Your task to perform on an android device: Go to eBay Image 0: 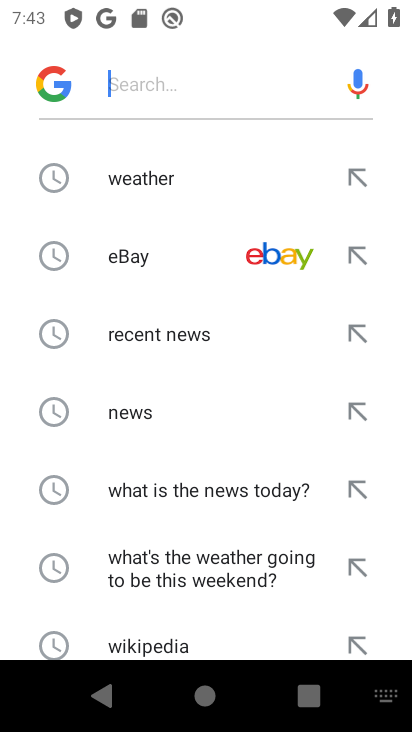
Step 0: click (164, 252)
Your task to perform on an android device: Go to eBay Image 1: 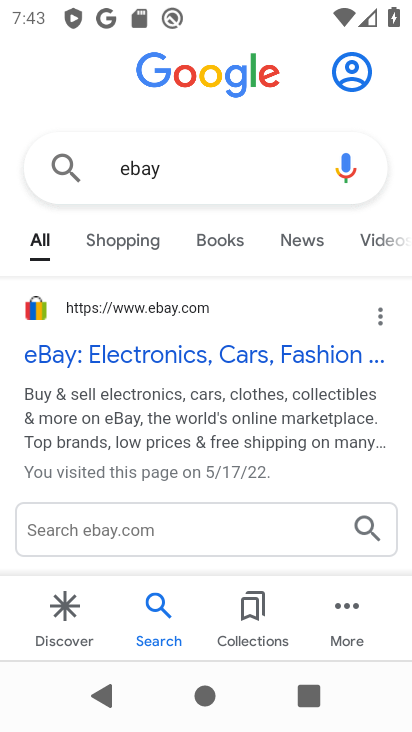
Step 1: click (81, 360)
Your task to perform on an android device: Go to eBay Image 2: 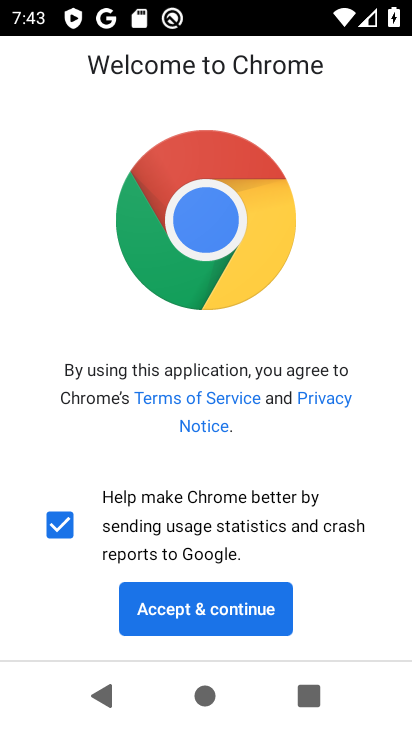
Step 2: click (227, 600)
Your task to perform on an android device: Go to eBay Image 3: 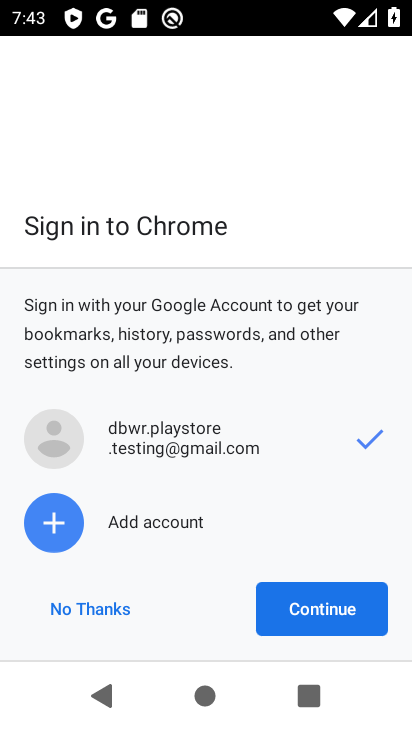
Step 3: click (329, 600)
Your task to perform on an android device: Go to eBay Image 4: 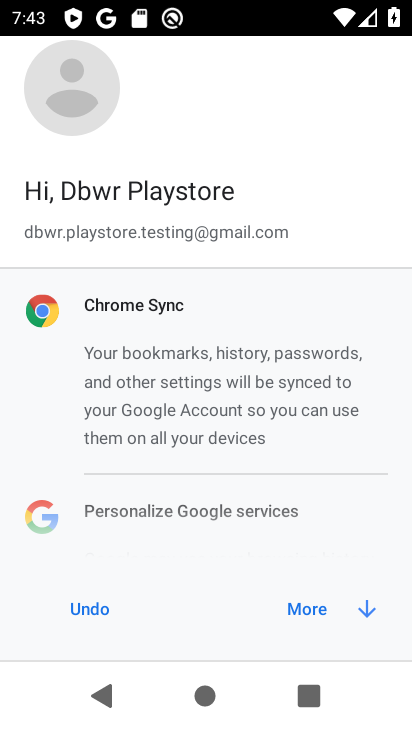
Step 4: click (330, 609)
Your task to perform on an android device: Go to eBay Image 5: 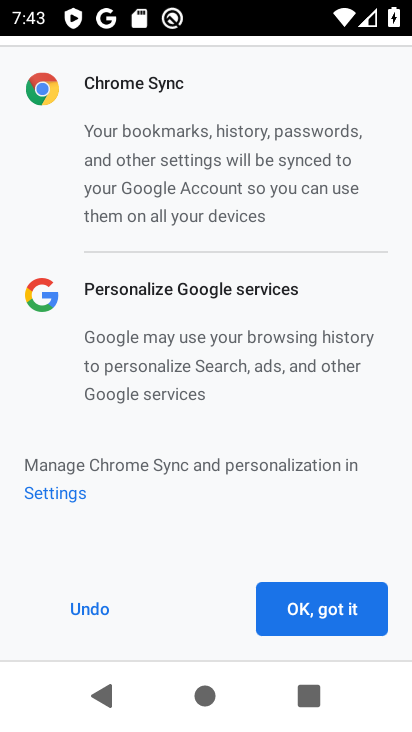
Step 5: click (330, 609)
Your task to perform on an android device: Go to eBay Image 6: 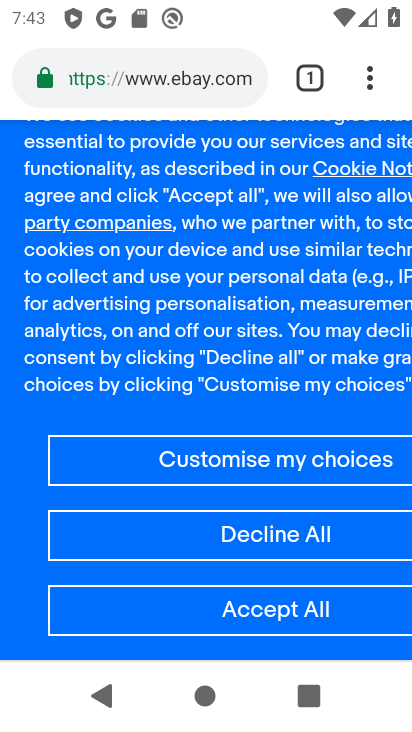
Step 6: task complete